Your task to perform on an android device: uninstall "Google Home" Image 0: 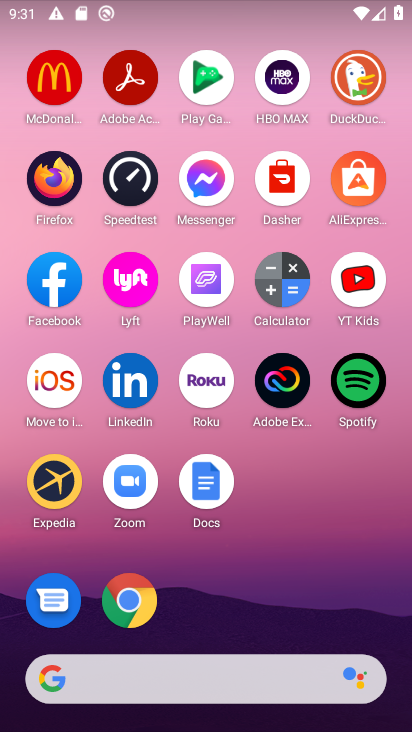
Step 0: drag from (209, 457) to (237, 112)
Your task to perform on an android device: uninstall "Google Home" Image 1: 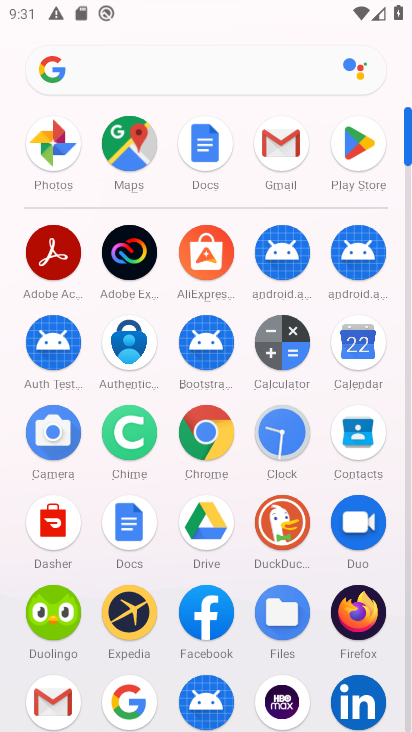
Step 1: click (346, 138)
Your task to perform on an android device: uninstall "Google Home" Image 2: 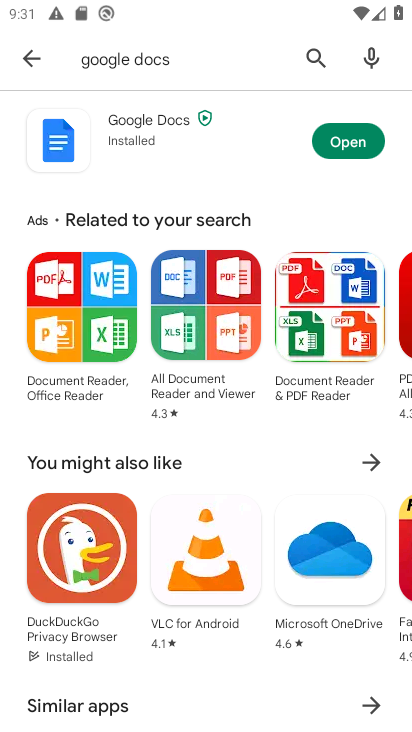
Step 2: click (315, 54)
Your task to perform on an android device: uninstall "Google Home" Image 3: 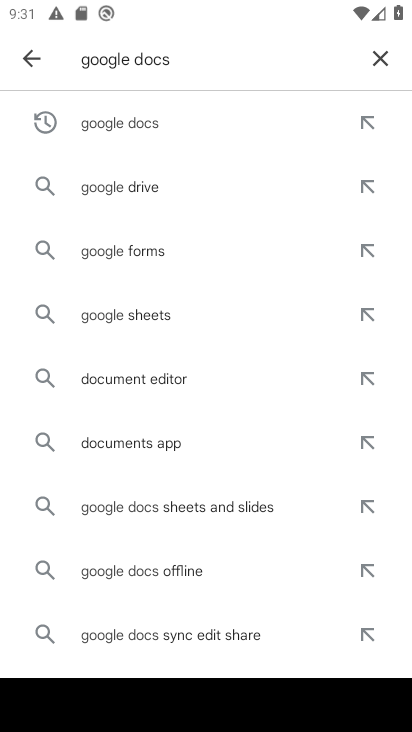
Step 3: click (375, 58)
Your task to perform on an android device: uninstall "Google Home" Image 4: 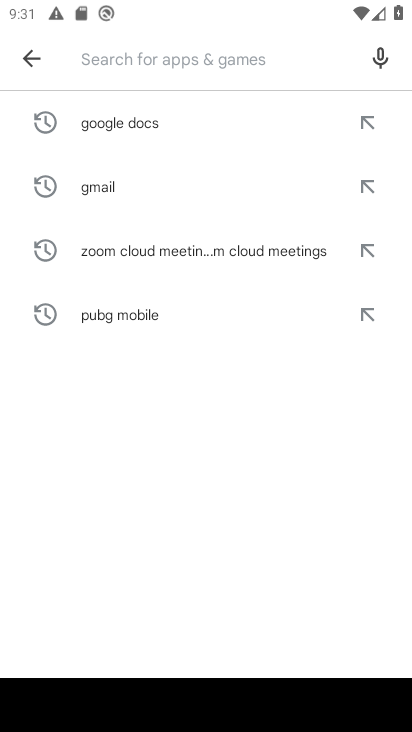
Step 4: drag from (357, 680) to (404, 713)
Your task to perform on an android device: uninstall "Google Home" Image 5: 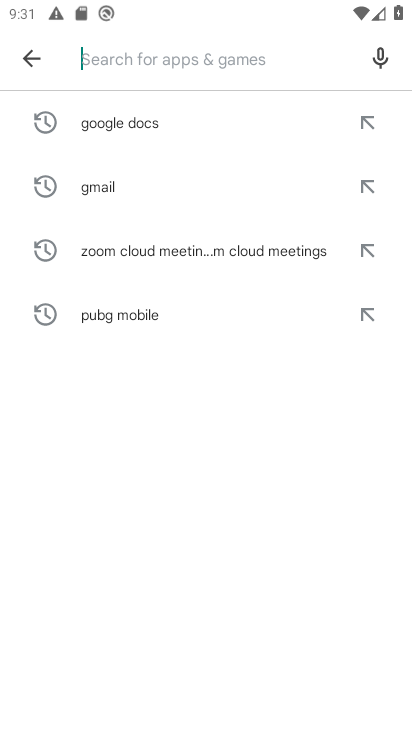
Step 5: type "Google Home"
Your task to perform on an android device: uninstall "Google Home" Image 6: 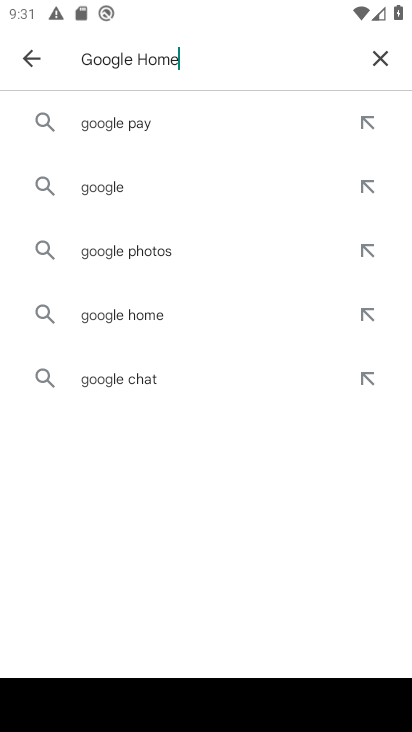
Step 6: type ""
Your task to perform on an android device: uninstall "Google Home" Image 7: 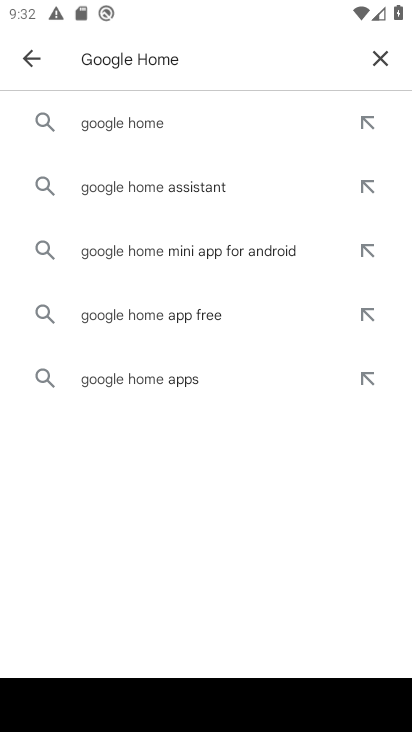
Step 7: click (115, 124)
Your task to perform on an android device: uninstall "Google Home" Image 8: 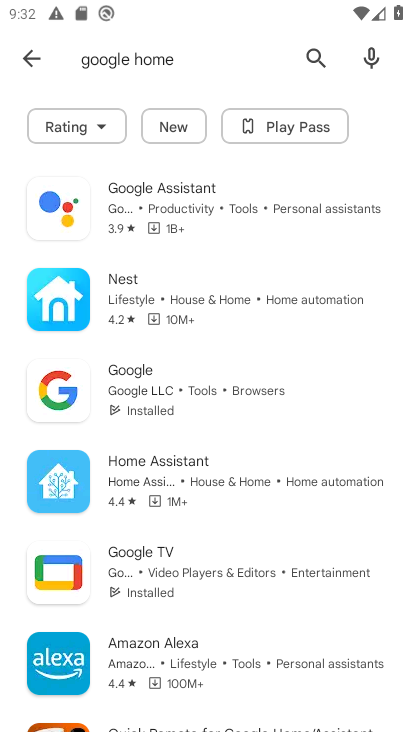
Step 8: task complete